Your task to perform on an android device: toggle javascript in the chrome app Image 0: 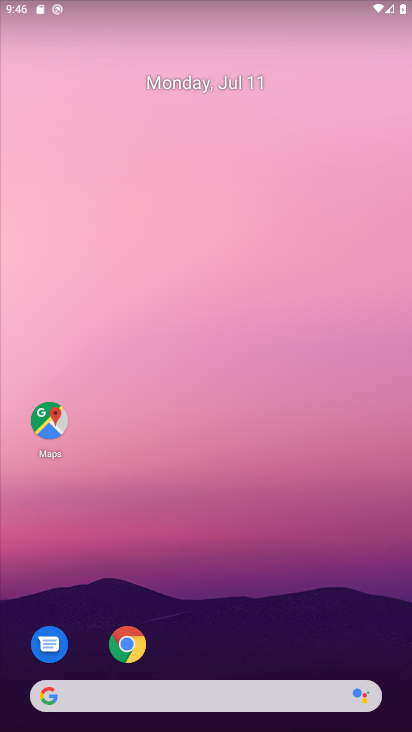
Step 0: drag from (274, 658) to (263, 103)
Your task to perform on an android device: toggle javascript in the chrome app Image 1: 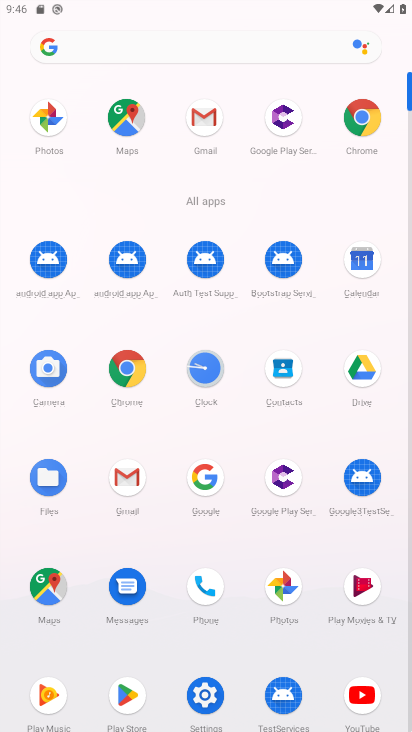
Step 1: click (127, 380)
Your task to perform on an android device: toggle javascript in the chrome app Image 2: 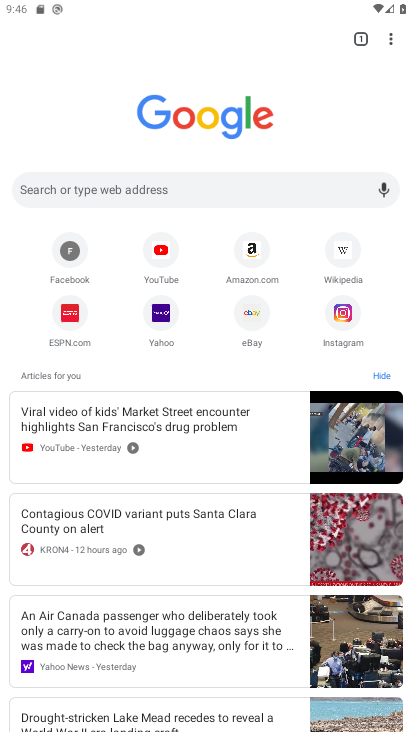
Step 2: drag from (388, 29) to (278, 331)
Your task to perform on an android device: toggle javascript in the chrome app Image 3: 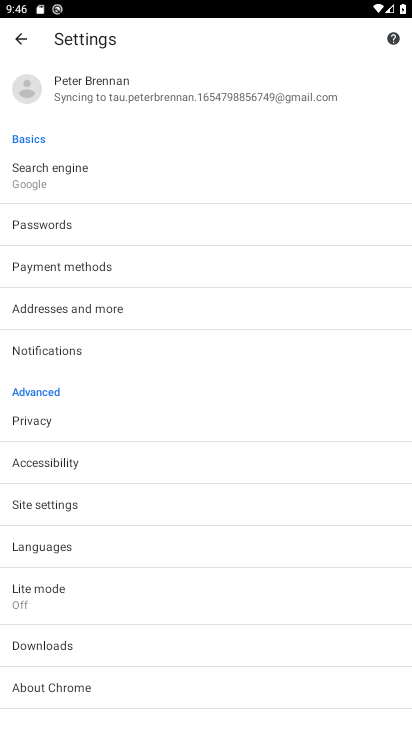
Step 3: click (28, 495)
Your task to perform on an android device: toggle javascript in the chrome app Image 4: 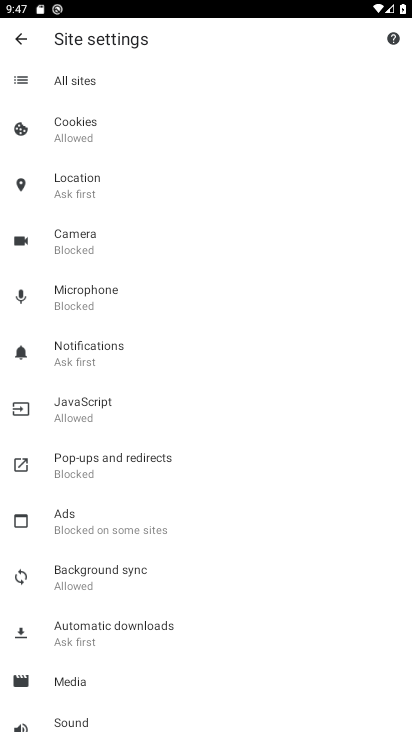
Step 4: click (54, 407)
Your task to perform on an android device: toggle javascript in the chrome app Image 5: 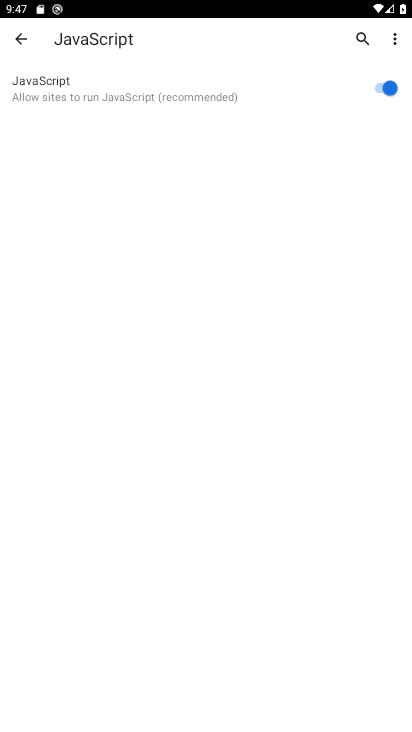
Step 5: click (397, 88)
Your task to perform on an android device: toggle javascript in the chrome app Image 6: 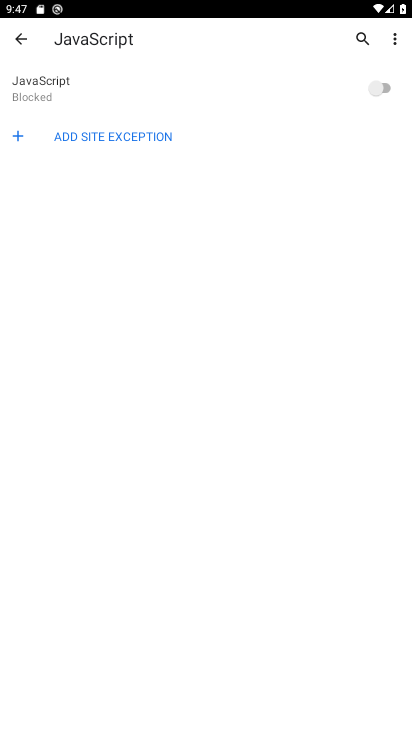
Step 6: task complete